Your task to perform on an android device: open device folders in google photos Image 0: 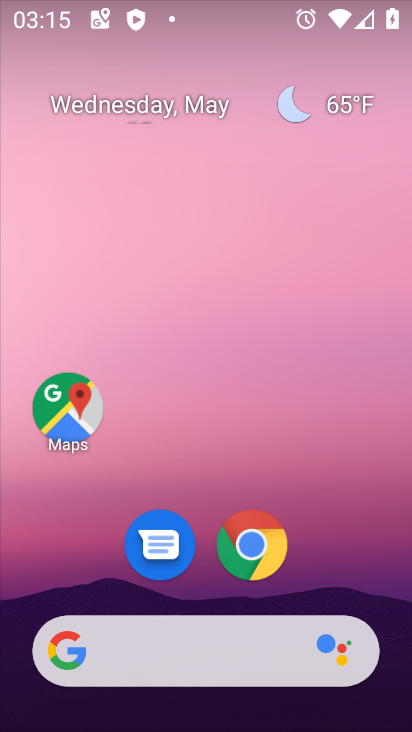
Step 0: click (198, 60)
Your task to perform on an android device: open device folders in google photos Image 1: 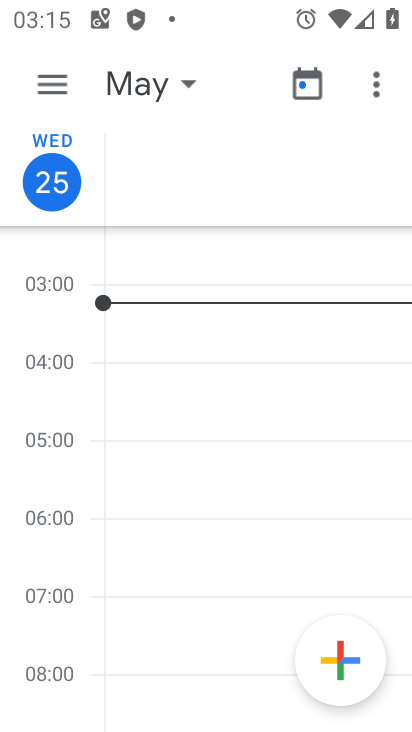
Step 1: click (224, 82)
Your task to perform on an android device: open device folders in google photos Image 2: 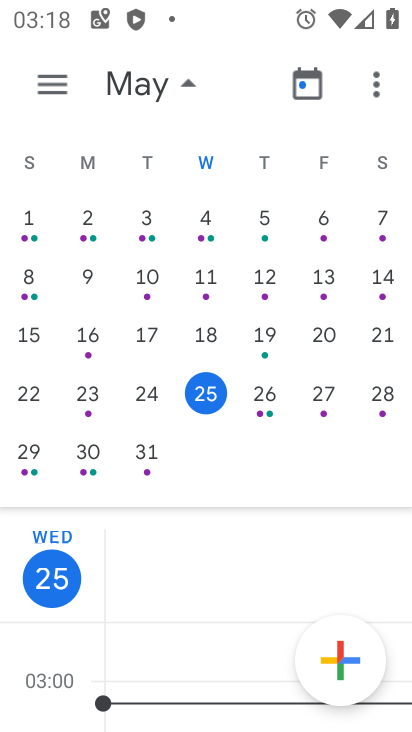
Step 2: press home button
Your task to perform on an android device: open device folders in google photos Image 3: 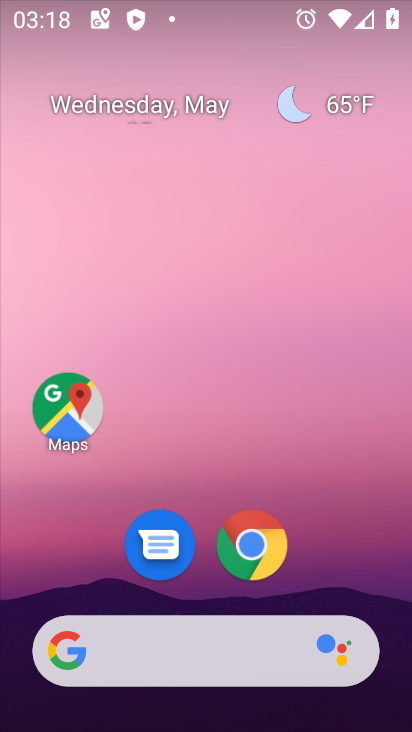
Step 3: drag from (370, 561) to (272, 40)
Your task to perform on an android device: open device folders in google photos Image 4: 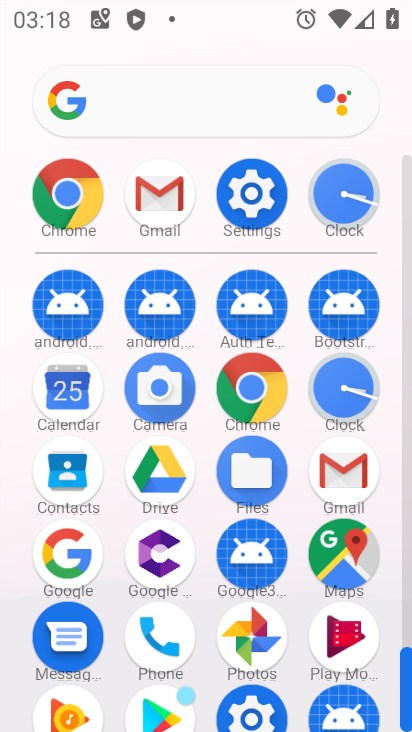
Step 4: click (248, 629)
Your task to perform on an android device: open device folders in google photos Image 5: 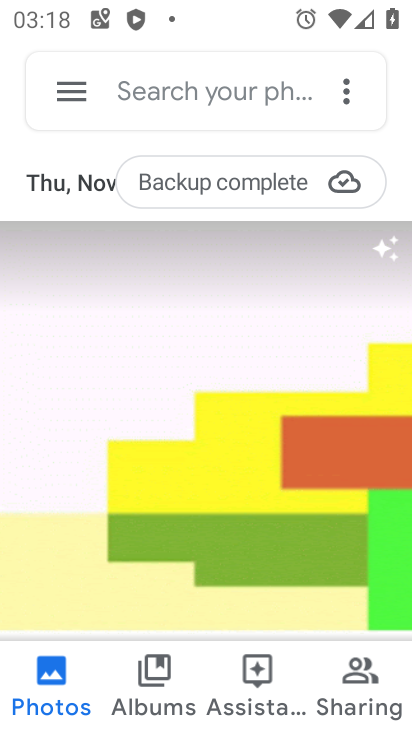
Step 5: click (79, 93)
Your task to perform on an android device: open device folders in google photos Image 6: 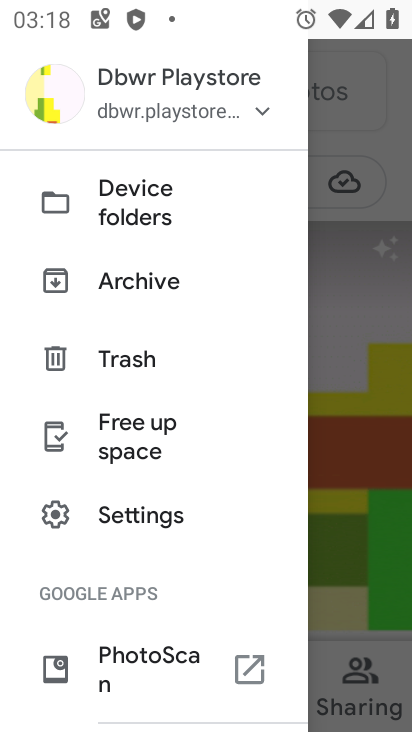
Step 6: click (159, 209)
Your task to perform on an android device: open device folders in google photos Image 7: 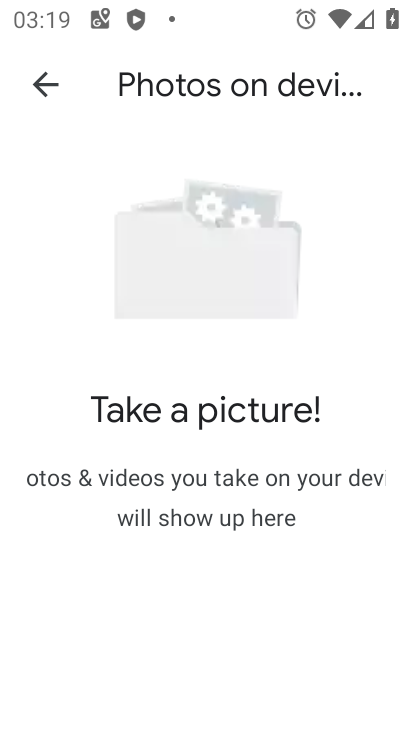
Step 7: task complete